Your task to perform on an android device: change the clock style Image 0: 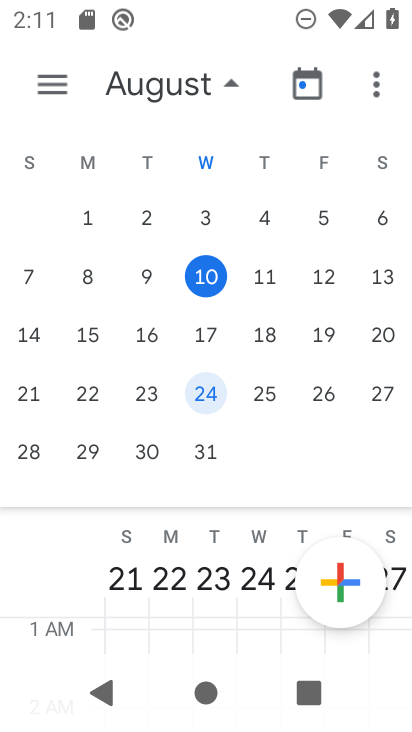
Step 0: press home button
Your task to perform on an android device: change the clock style Image 1: 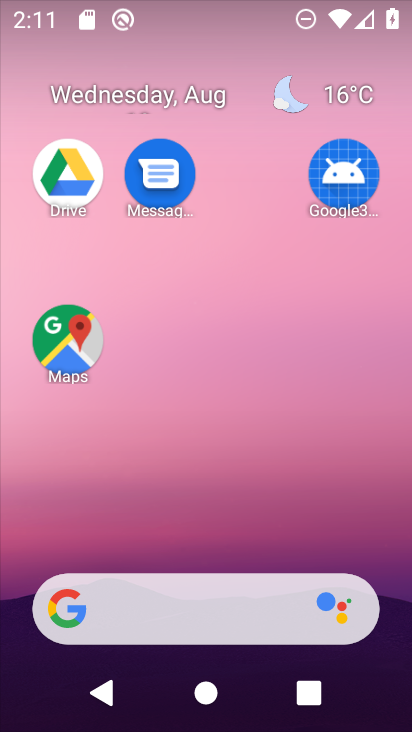
Step 1: drag from (189, 514) to (186, 67)
Your task to perform on an android device: change the clock style Image 2: 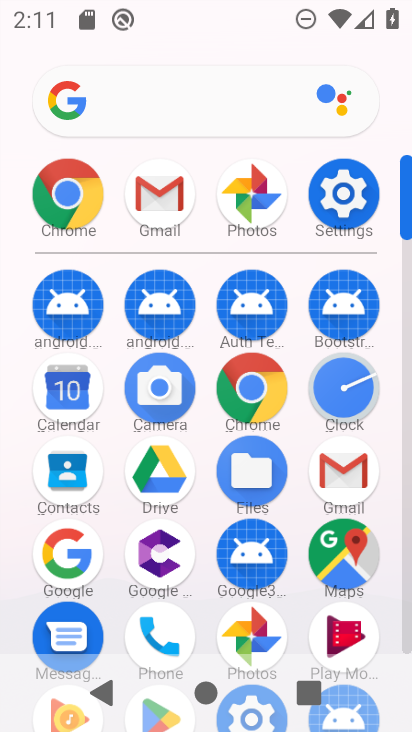
Step 2: click (357, 394)
Your task to perform on an android device: change the clock style Image 3: 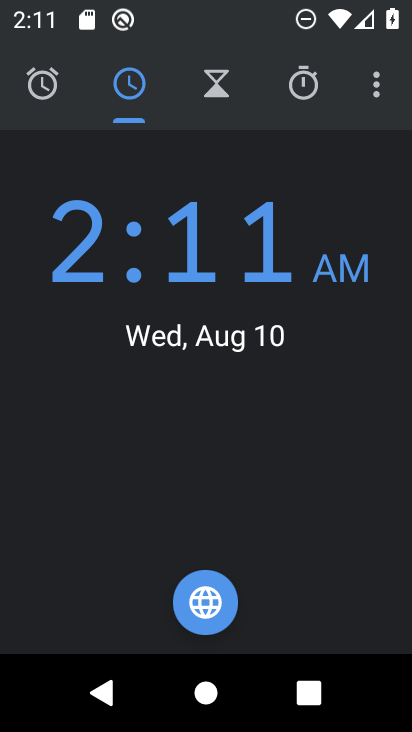
Step 3: click (389, 90)
Your task to perform on an android device: change the clock style Image 4: 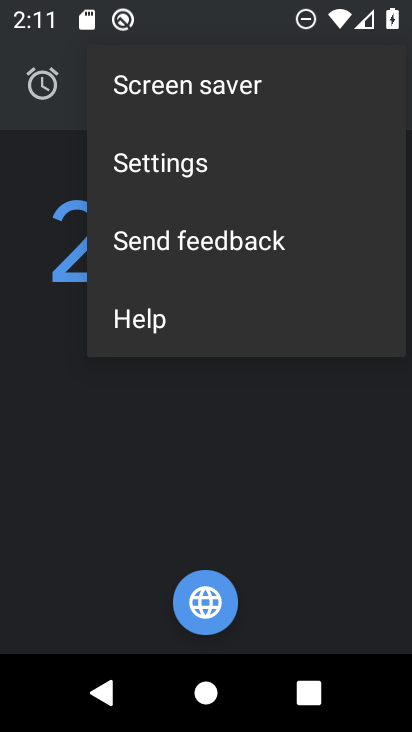
Step 4: click (157, 162)
Your task to perform on an android device: change the clock style Image 5: 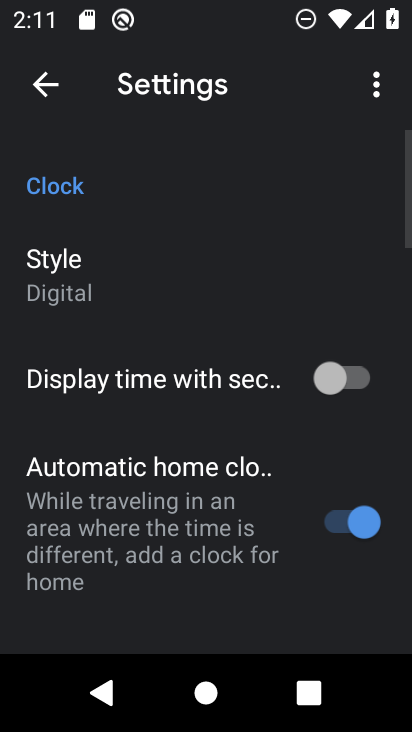
Step 5: click (78, 298)
Your task to perform on an android device: change the clock style Image 6: 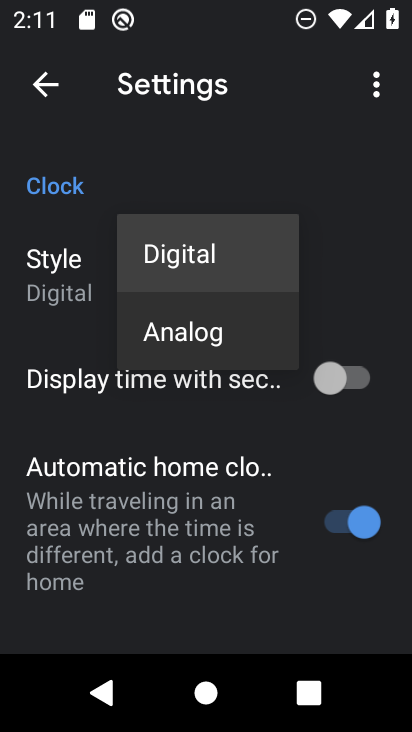
Step 6: click (139, 324)
Your task to perform on an android device: change the clock style Image 7: 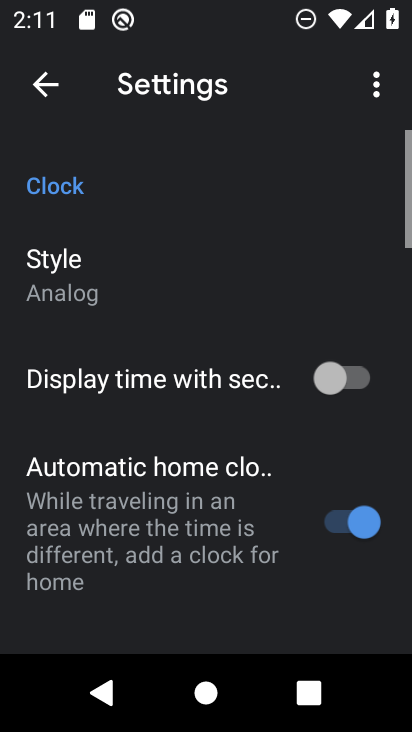
Step 7: task complete